Your task to perform on an android device: install app "DoorDash - Food Delivery" Image 0: 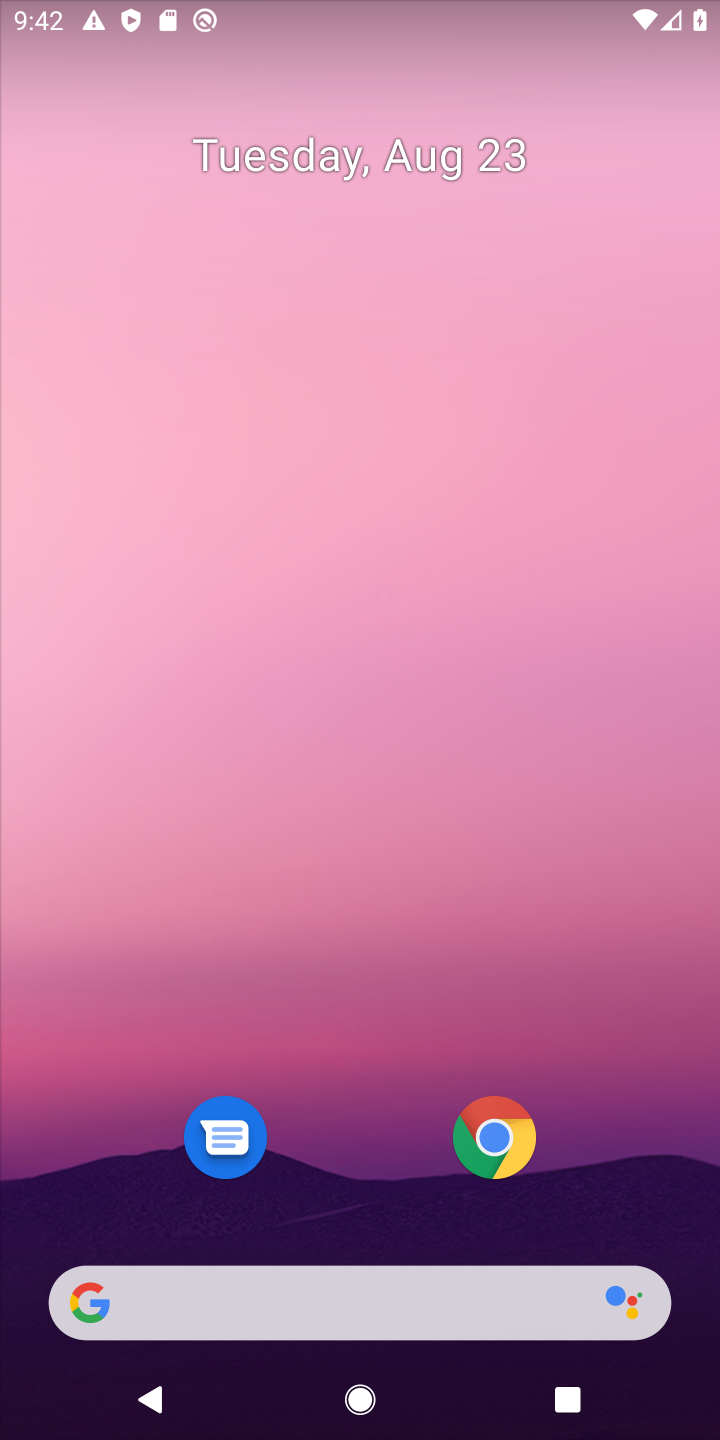
Step 0: drag from (409, 1266) to (309, 183)
Your task to perform on an android device: install app "DoorDash - Food Delivery" Image 1: 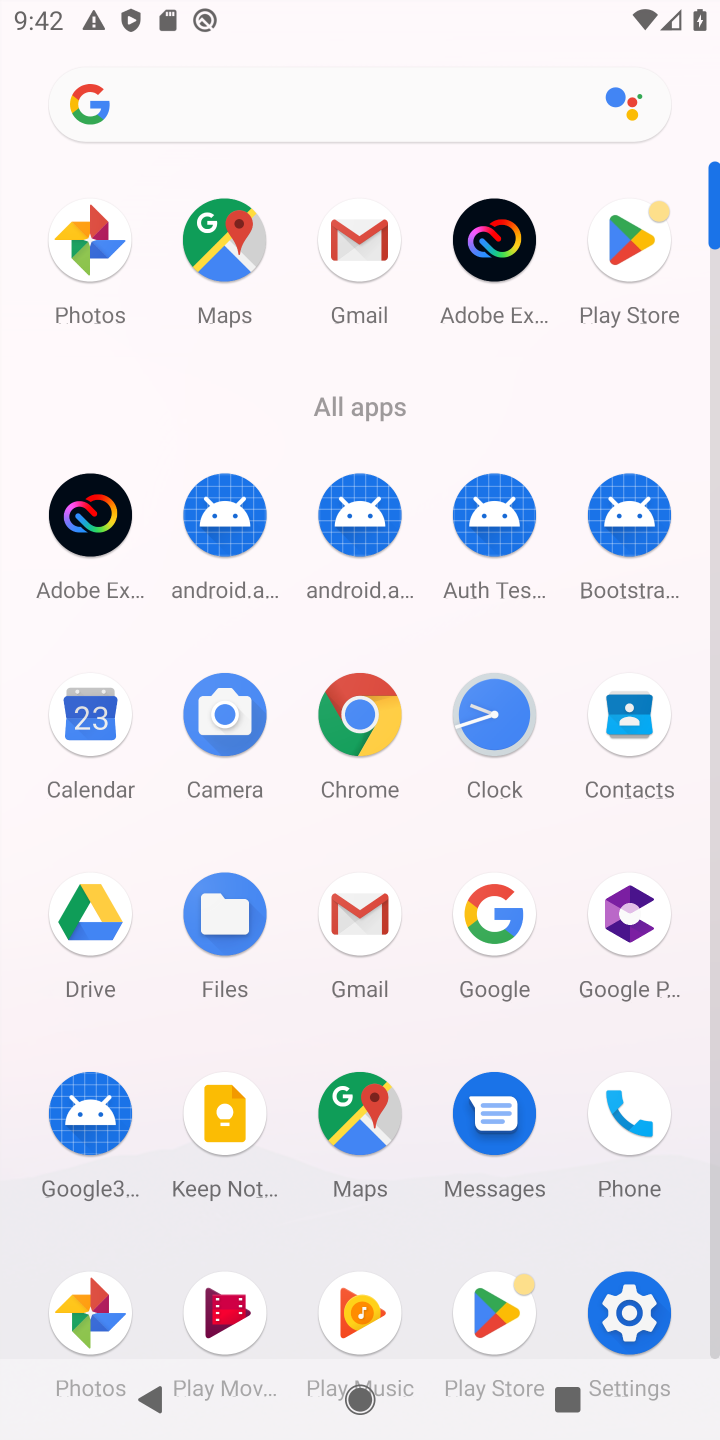
Step 1: click (489, 1303)
Your task to perform on an android device: install app "DoorDash - Food Delivery" Image 2: 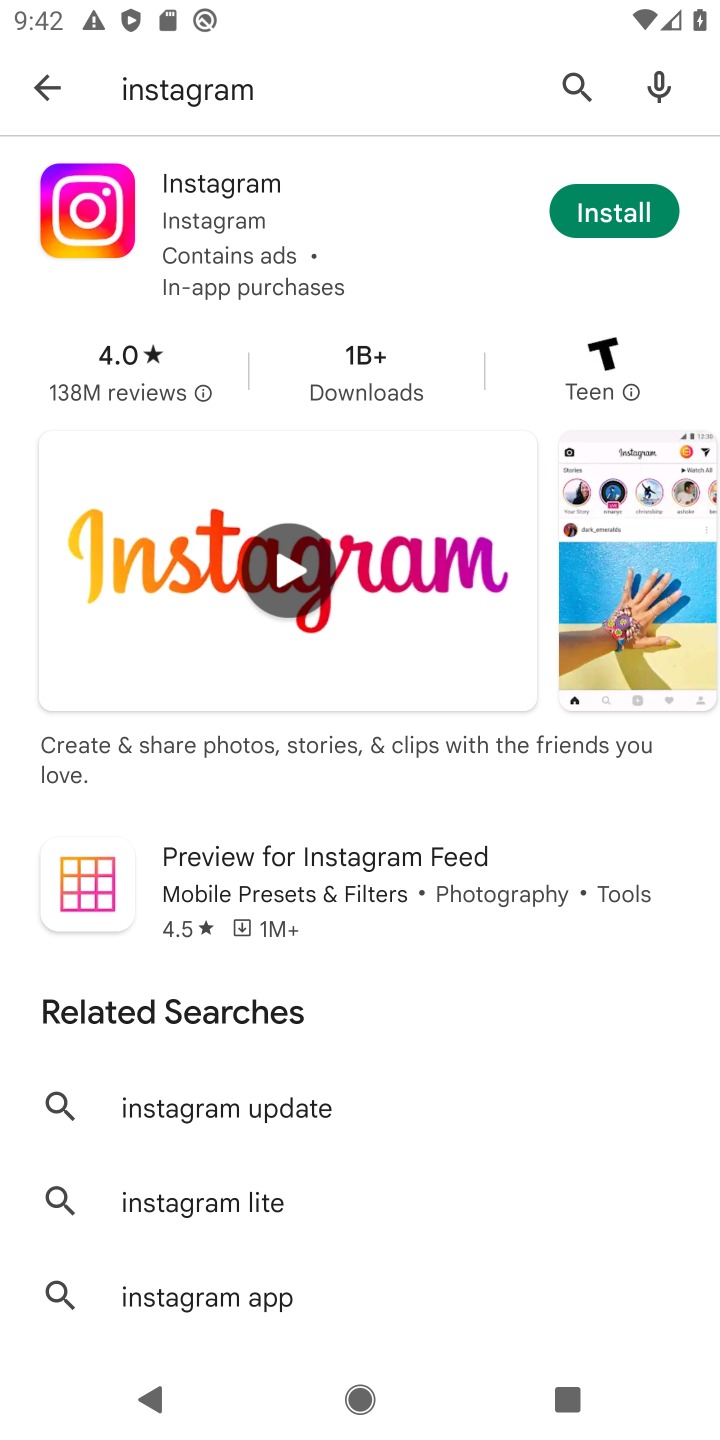
Step 2: click (41, 110)
Your task to perform on an android device: install app "DoorDash - Food Delivery" Image 3: 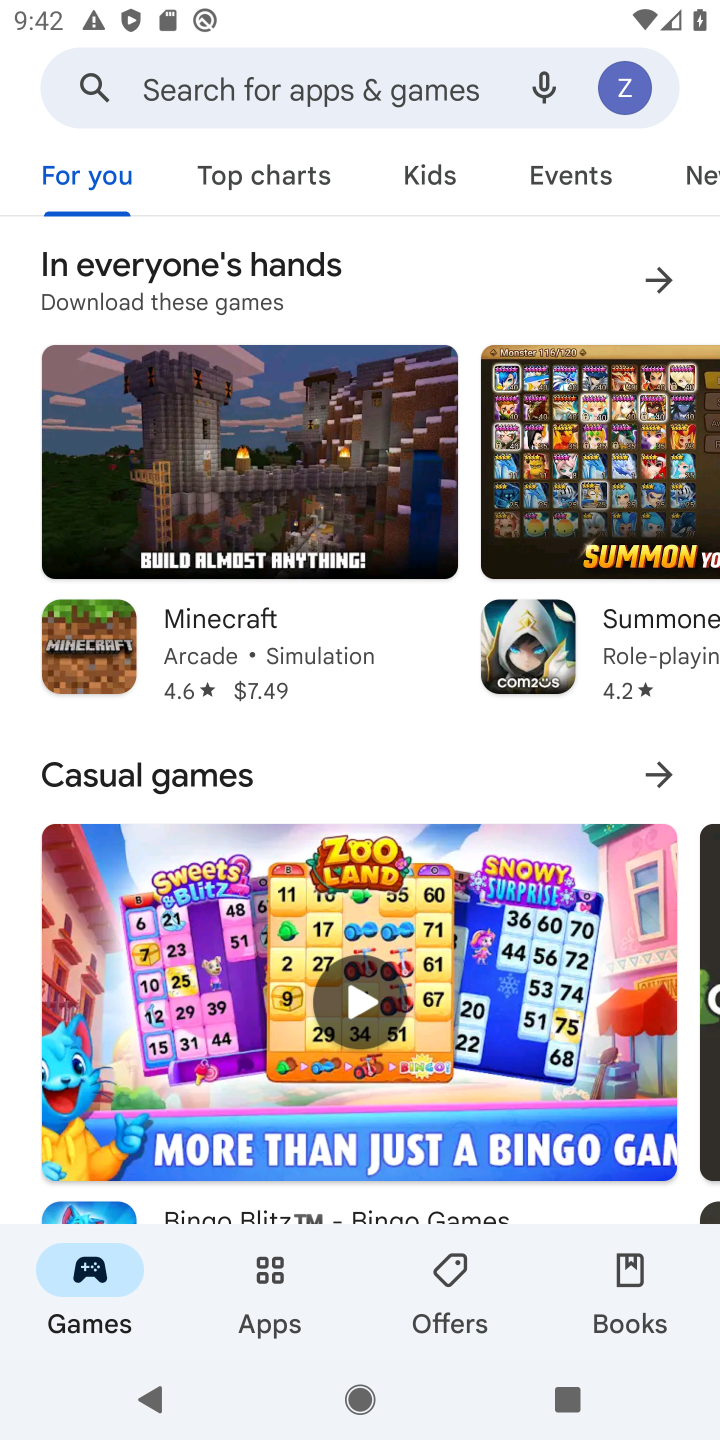
Step 3: click (168, 110)
Your task to perform on an android device: install app "DoorDash - Food Delivery" Image 4: 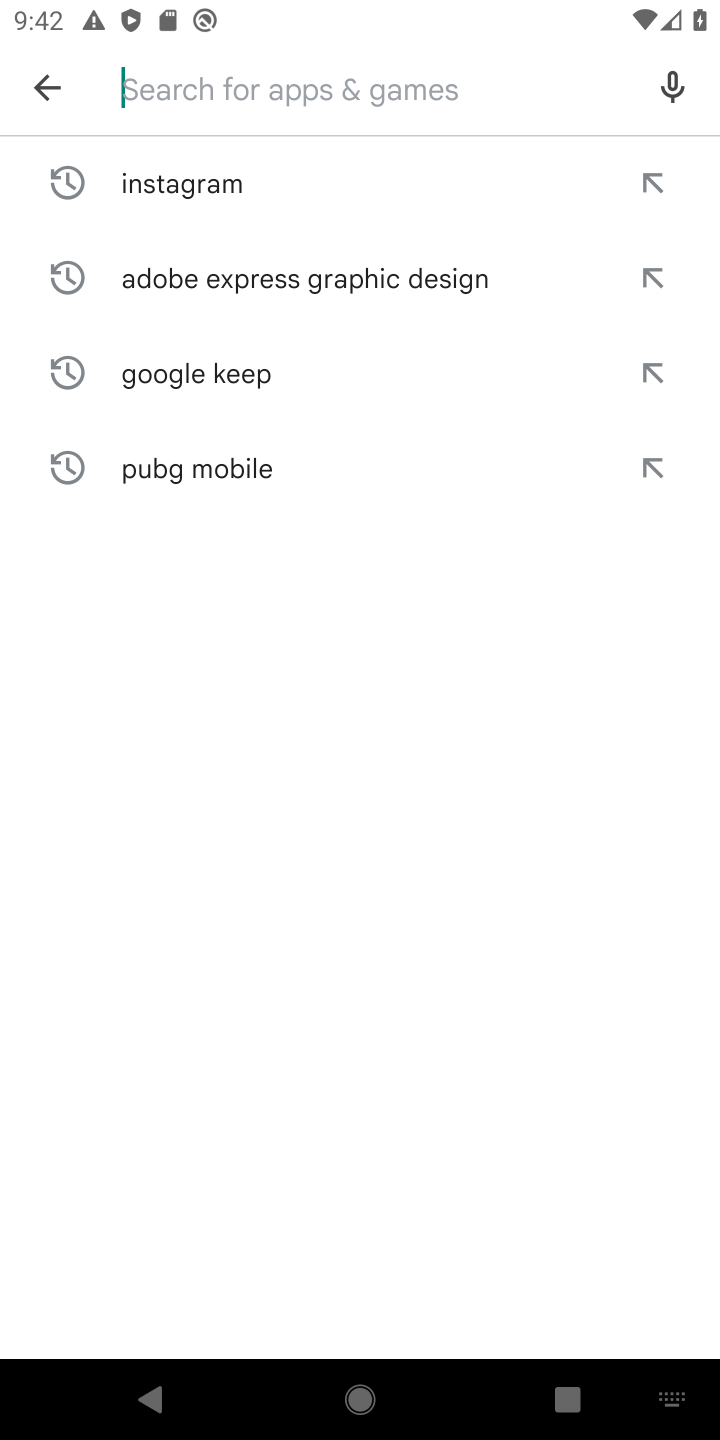
Step 4: type "DoorDash - Food Delivery"
Your task to perform on an android device: install app "DoorDash - Food Delivery" Image 5: 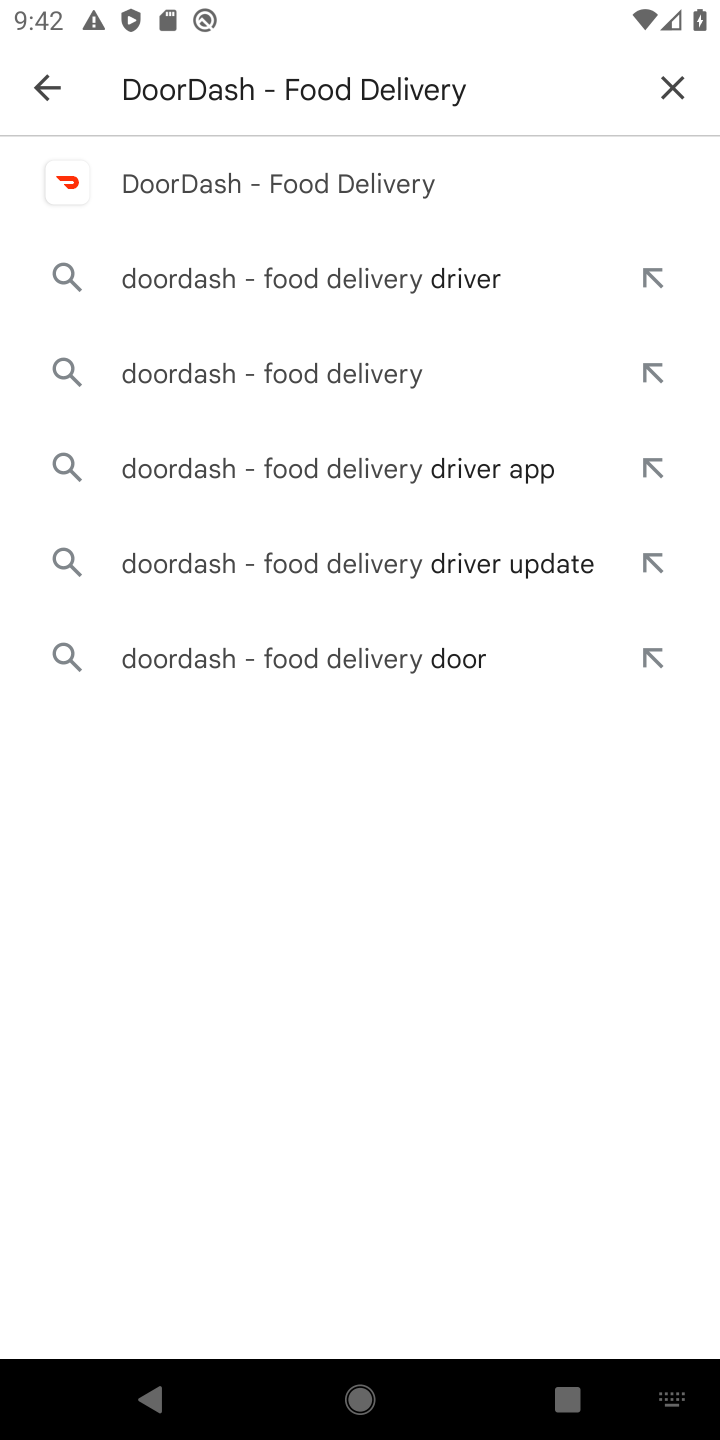
Step 5: click (141, 181)
Your task to perform on an android device: install app "DoorDash - Food Delivery" Image 6: 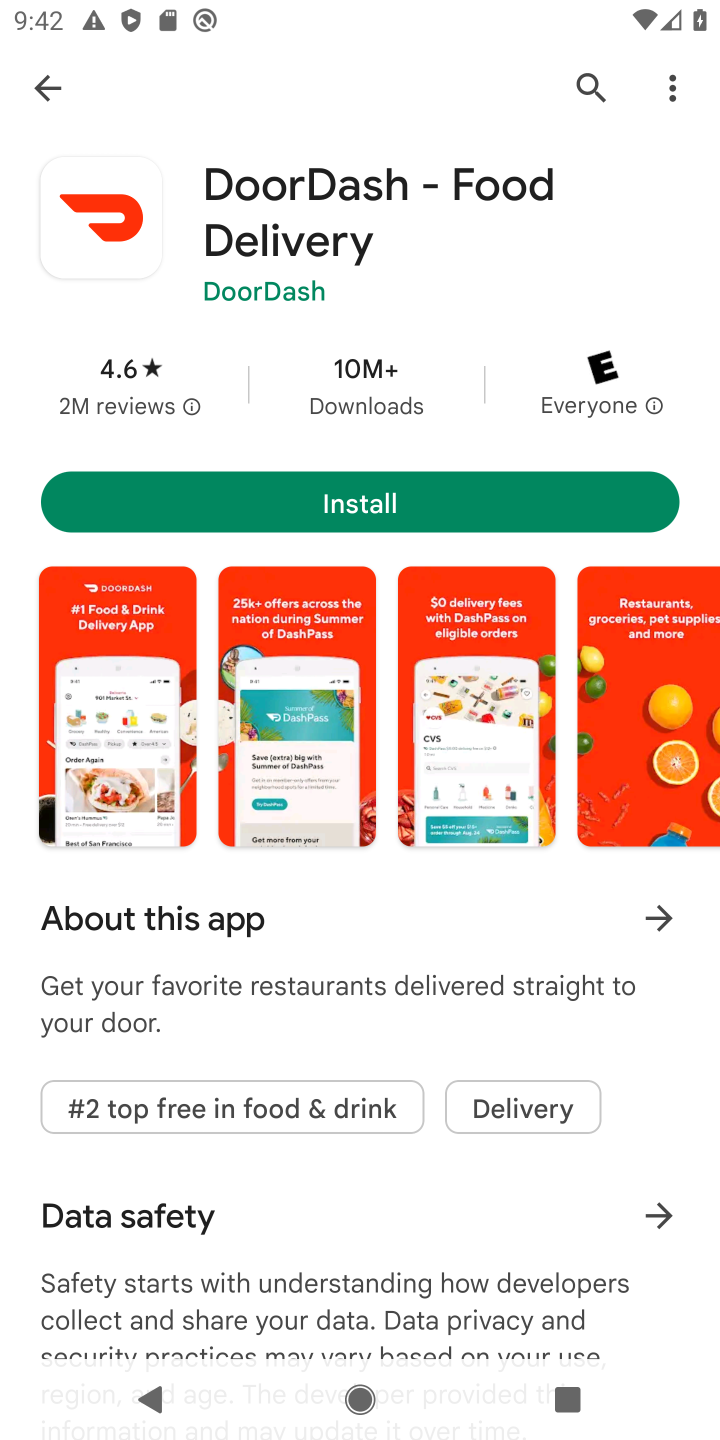
Step 6: click (237, 519)
Your task to perform on an android device: install app "DoorDash - Food Delivery" Image 7: 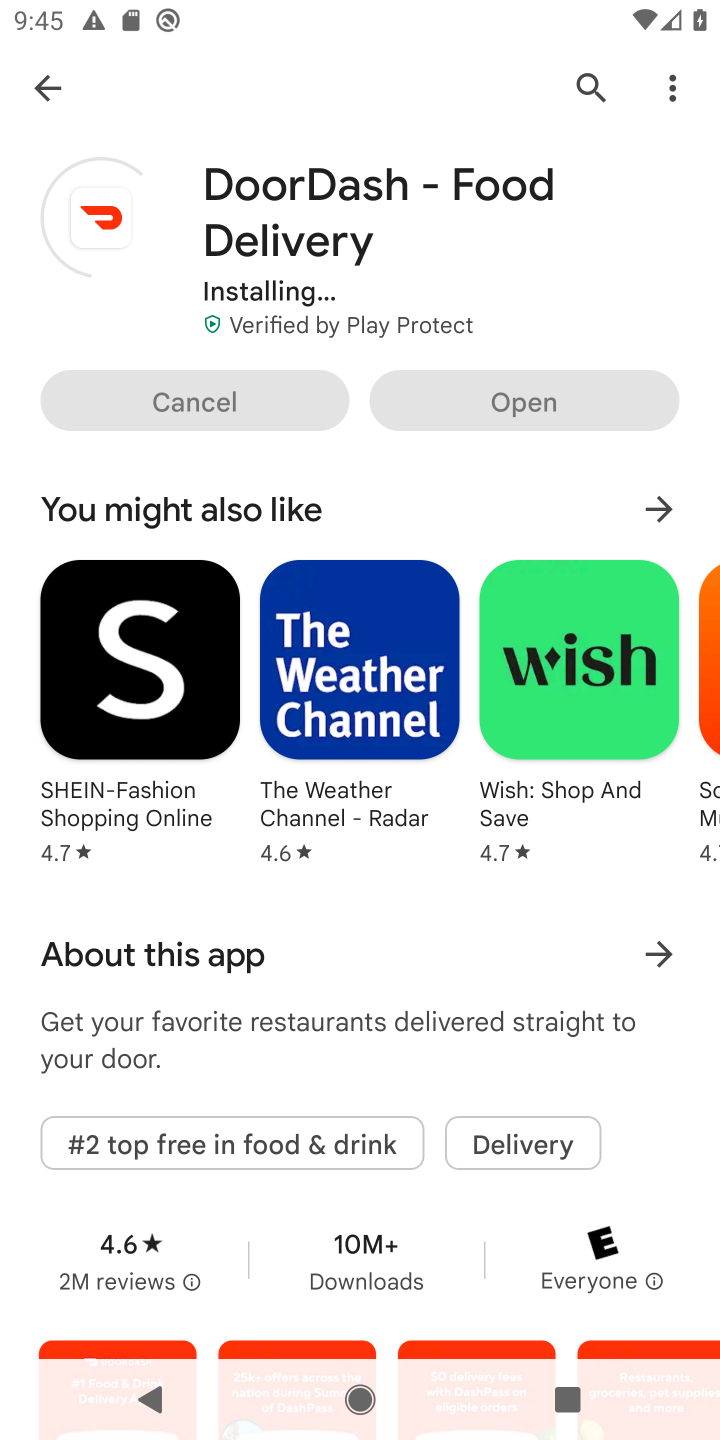
Step 7: click (231, 455)
Your task to perform on an android device: install app "DoorDash - Food Delivery" Image 8: 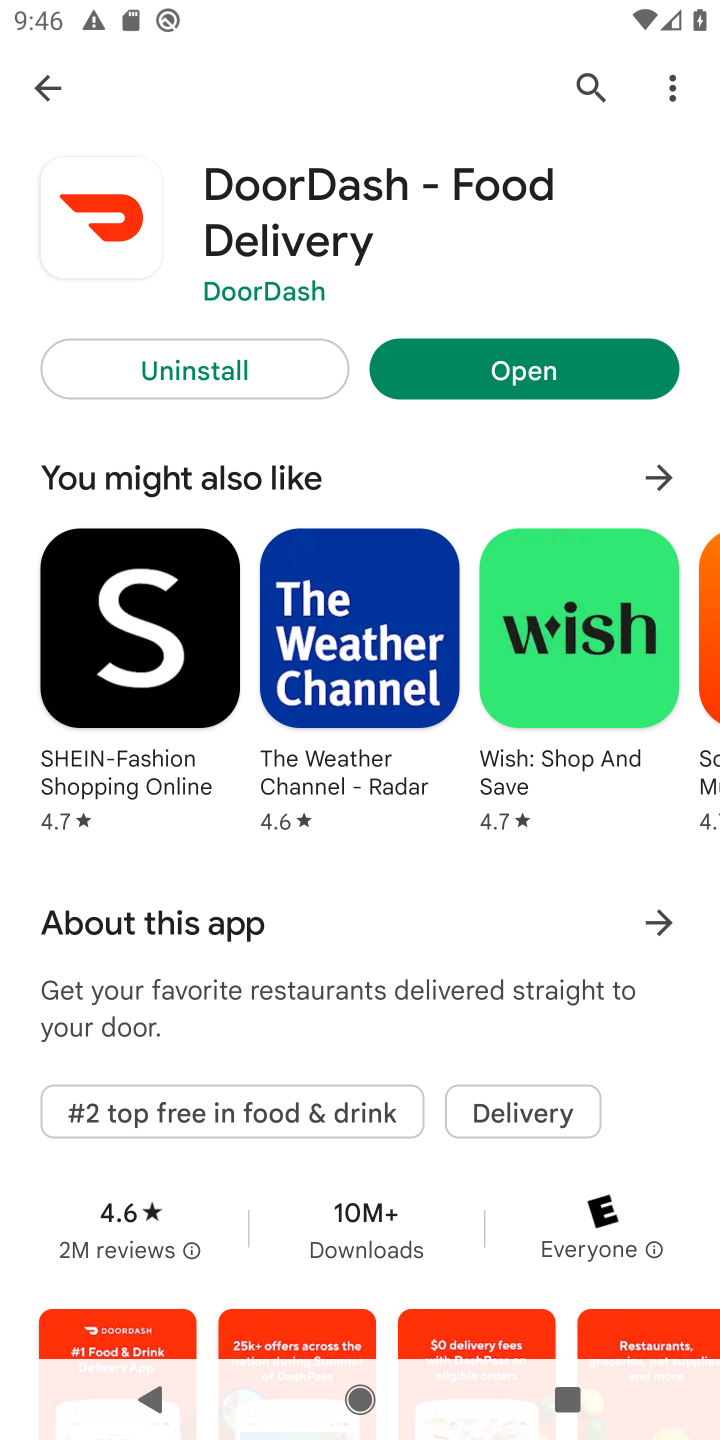
Step 8: click (602, 337)
Your task to perform on an android device: install app "DoorDash - Food Delivery" Image 9: 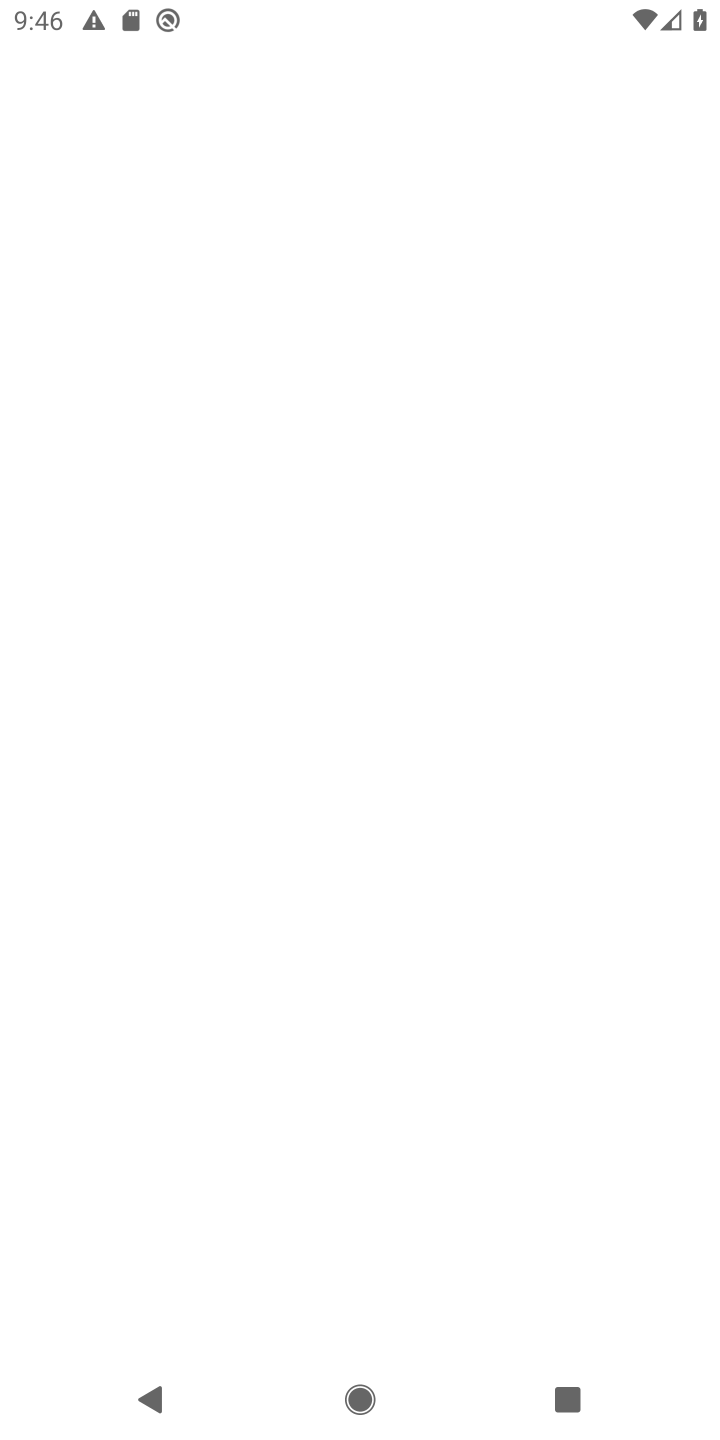
Step 9: task complete